Your task to perform on an android device: move a message to another label in the gmail app Image 0: 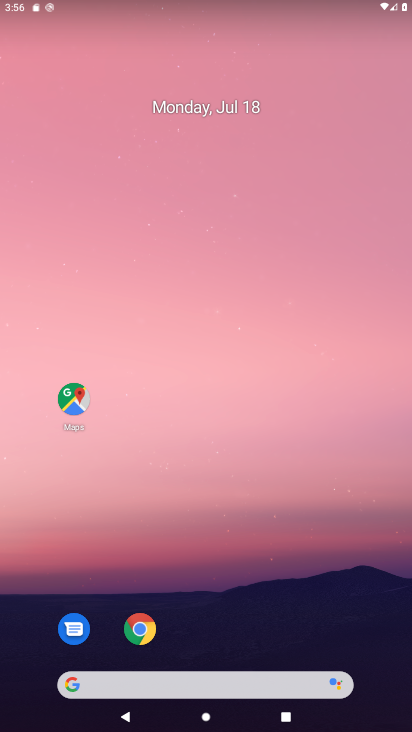
Step 0: drag from (210, 626) to (223, 120)
Your task to perform on an android device: move a message to another label in the gmail app Image 1: 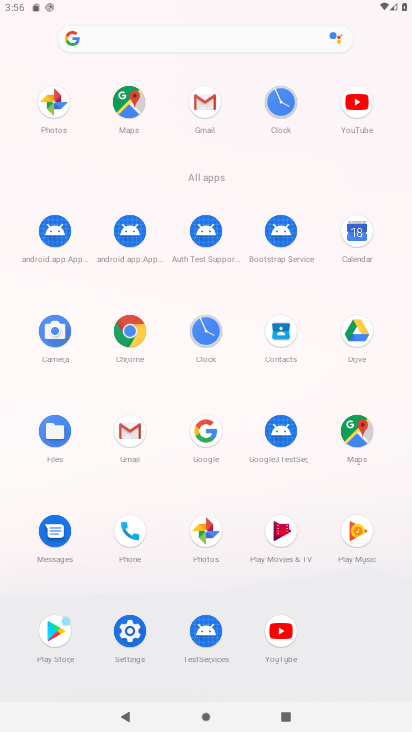
Step 1: click (197, 111)
Your task to perform on an android device: move a message to another label in the gmail app Image 2: 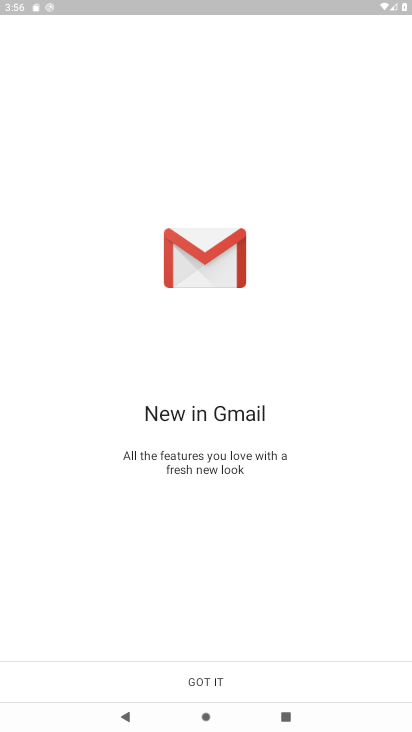
Step 2: click (197, 675)
Your task to perform on an android device: move a message to another label in the gmail app Image 3: 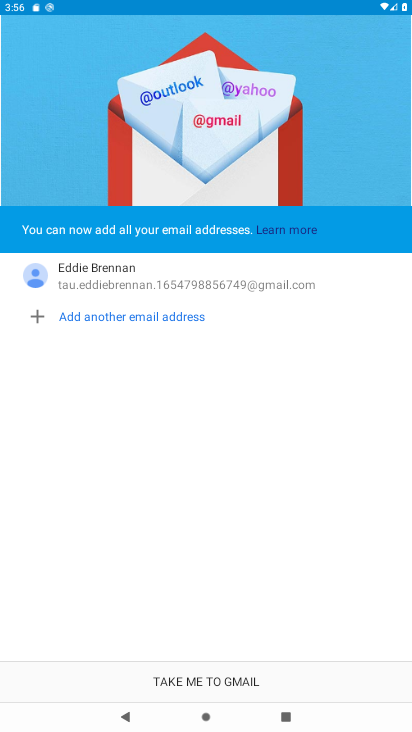
Step 3: click (197, 675)
Your task to perform on an android device: move a message to another label in the gmail app Image 4: 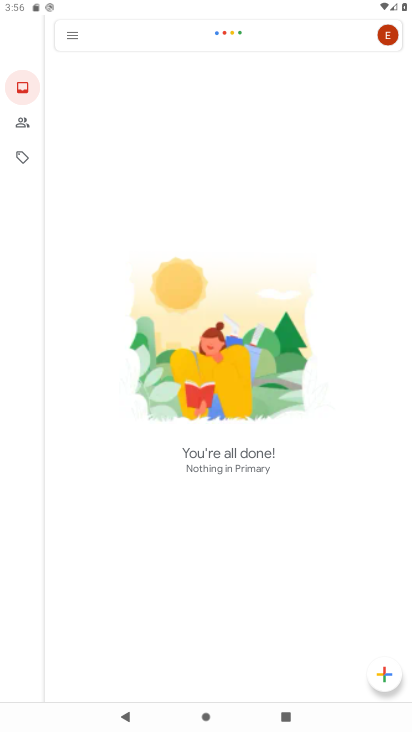
Step 4: click (77, 43)
Your task to perform on an android device: move a message to another label in the gmail app Image 5: 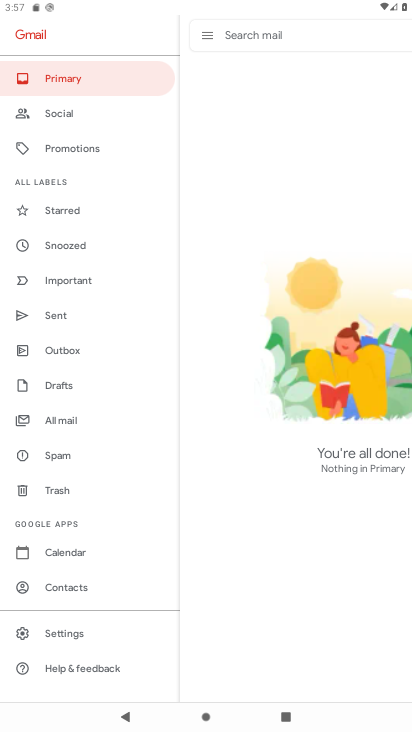
Step 5: click (111, 419)
Your task to perform on an android device: move a message to another label in the gmail app Image 6: 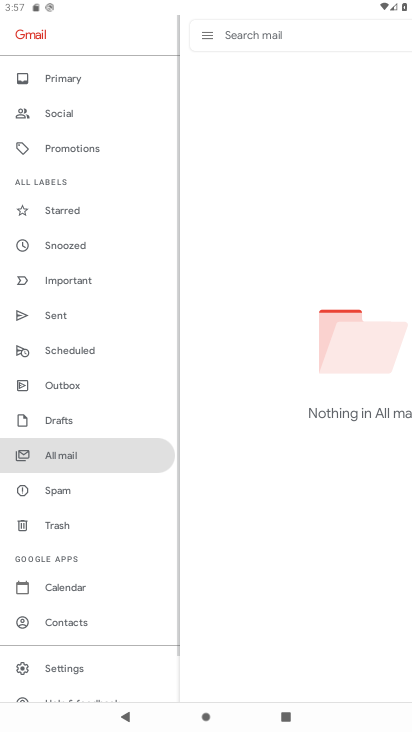
Step 6: task complete